Your task to perform on an android device: open chrome and create a bookmark for the current page Image 0: 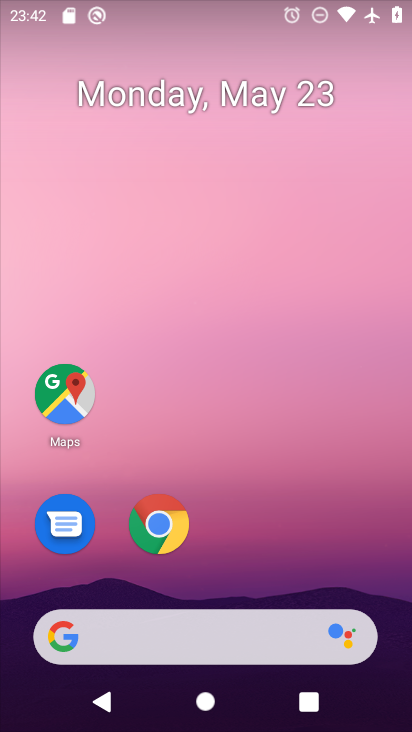
Step 0: click (224, 164)
Your task to perform on an android device: open chrome and create a bookmark for the current page Image 1: 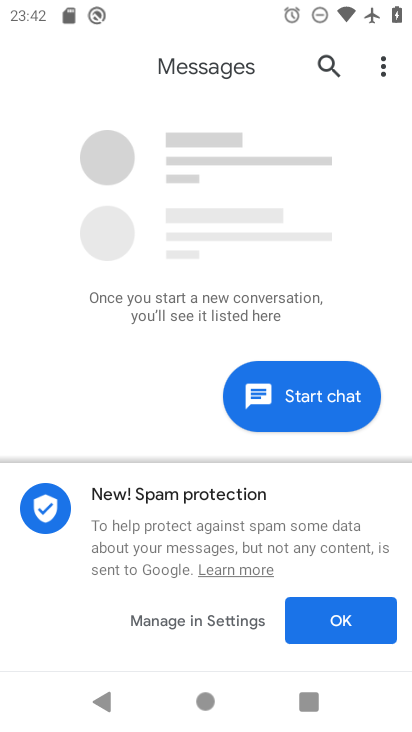
Step 1: press home button
Your task to perform on an android device: open chrome and create a bookmark for the current page Image 2: 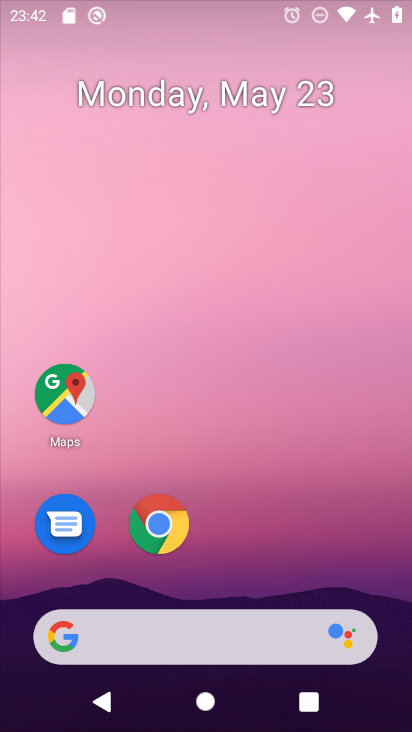
Step 2: click (183, 528)
Your task to perform on an android device: open chrome and create a bookmark for the current page Image 3: 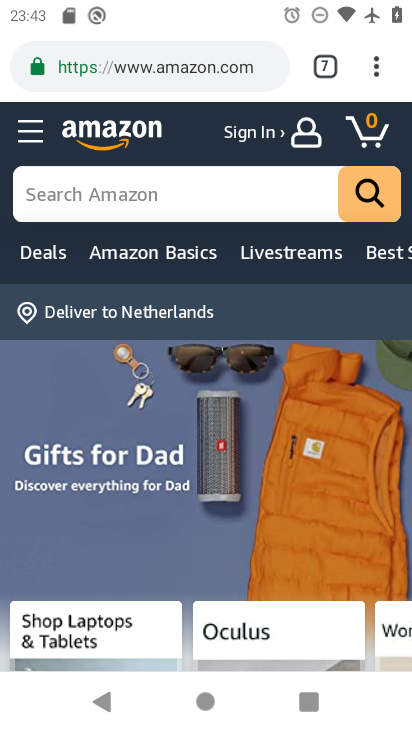
Step 3: task complete